Your task to perform on an android device: Go to privacy settings Image 0: 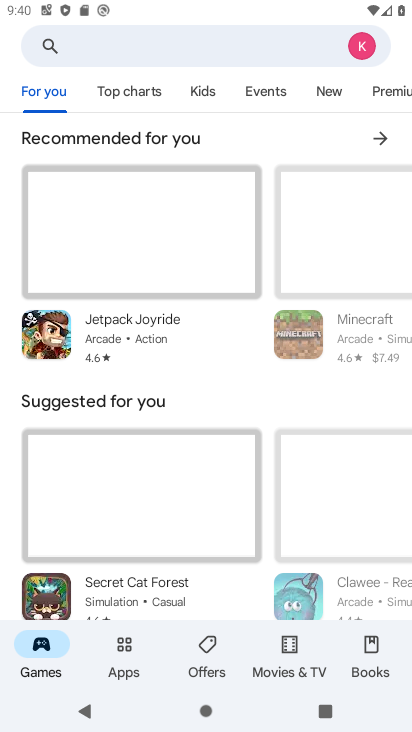
Step 0: press home button
Your task to perform on an android device: Go to privacy settings Image 1: 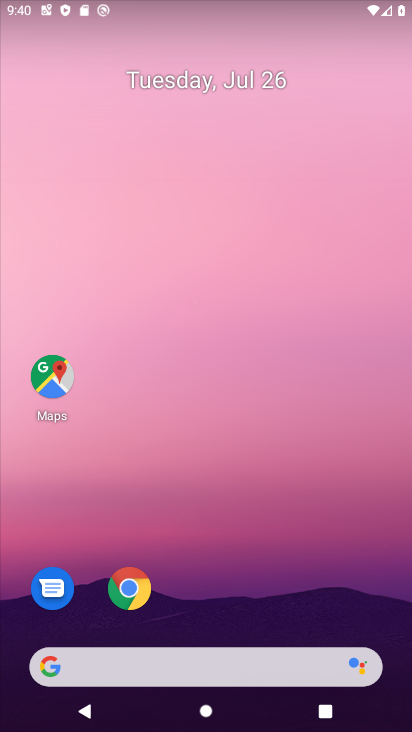
Step 1: drag from (176, 678) to (275, 6)
Your task to perform on an android device: Go to privacy settings Image 2: 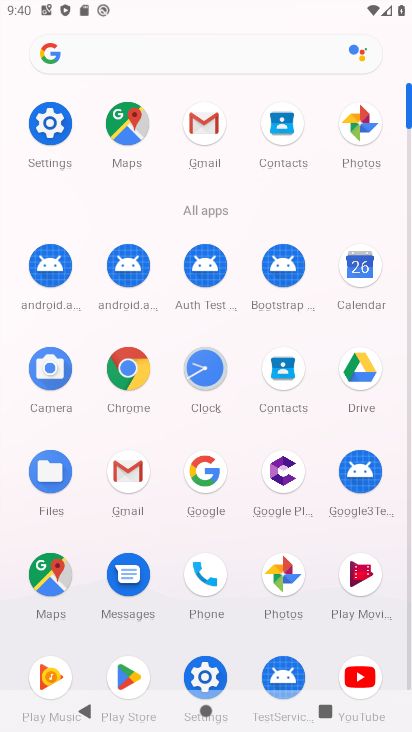
Step 2: click (50, 124)
Your task to perform on an android device: Go to privacy settings Image 3: 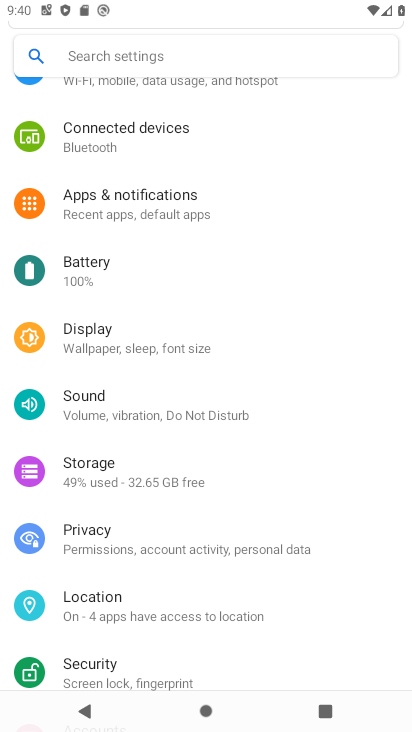
Step 3: drag from (122, 566) to (196, 477)
Your task to perform on an android device: Go to privacy settings Image 4: 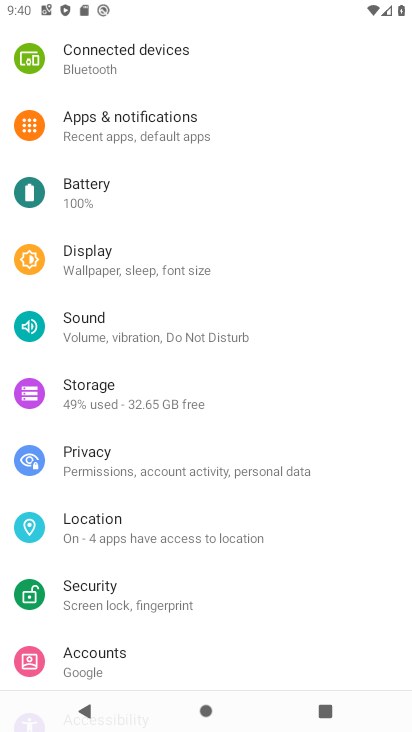
Step 4: click (193, 465)
Your task to perform on an android device: Go to privacy settings Image 5: 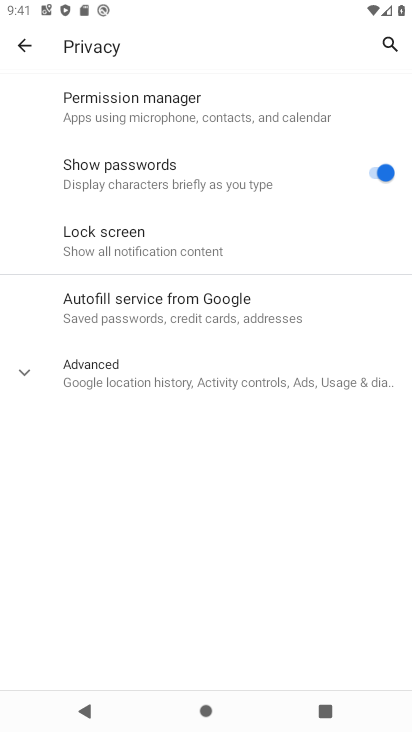
Step 5: task complete